Your task to perform on an android device: open wifi settings Image 0: 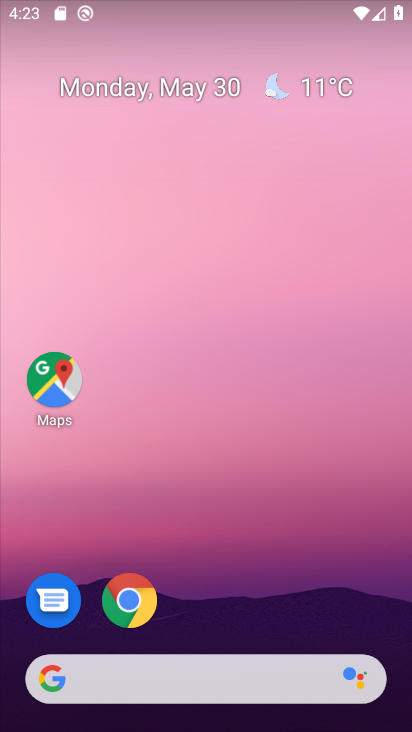
Step 0: drag from (318, 426) to (230, 27)
Your task to perform on an android device: open wifi settings Image 1: 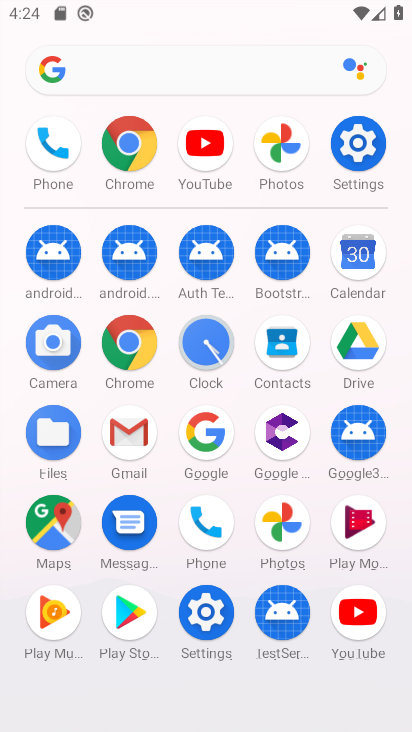
Step 1: click (374, 152)
Your task to perform on an android device: open wifi settings Image 2: 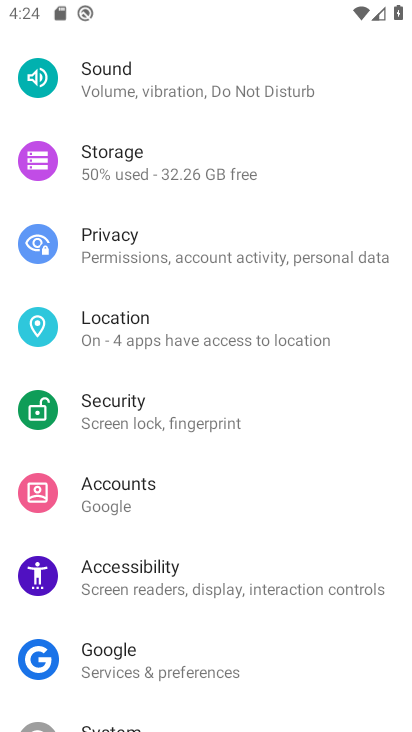
Step 2: drag from (122, 191) to (97, 726)
Your task to perform on an android device: open wifi settings Image 3: 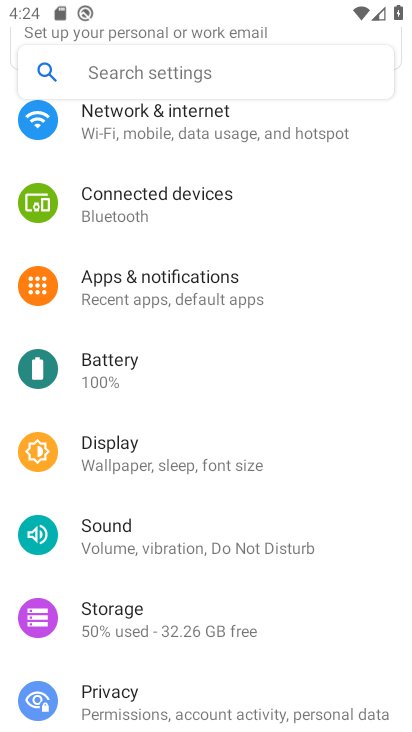
Step 3: drag from (161, 345) to (137, 729)
Your task to perform on an android device: open wifi settings Image 4: 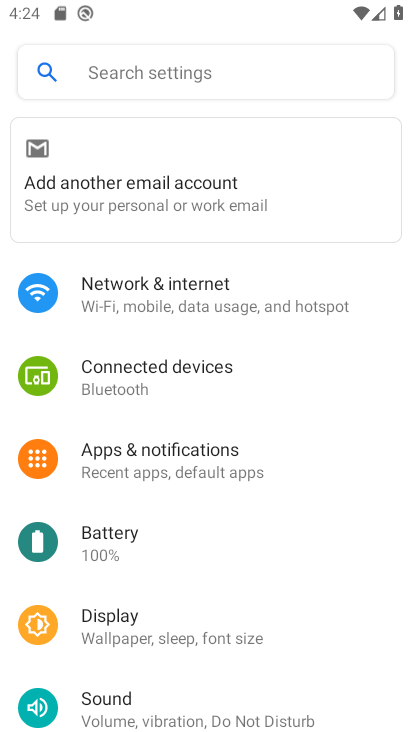
Step 4: click (155, 284)
Your task to perform on an android device: open wifi settings Image 5: 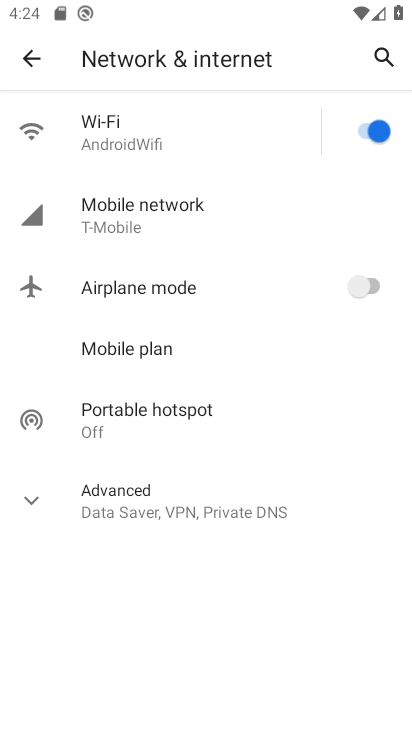
Step 5: click (99, 135)
Your task to perform on an android device: open wifi settings Image 6: 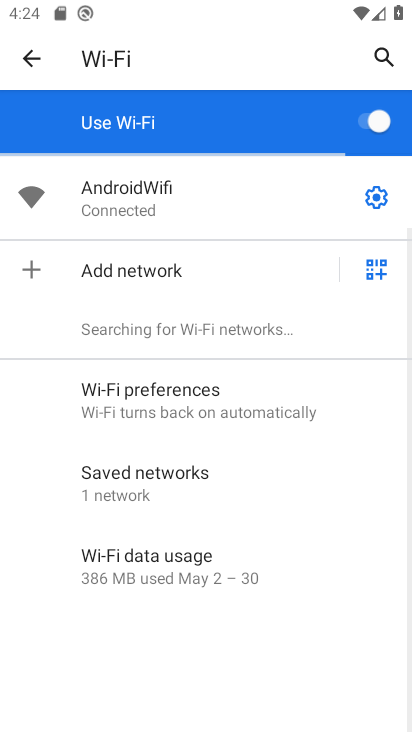
Step 6: task complete